Your task to perform on an android device: Open sound settings Image 0: 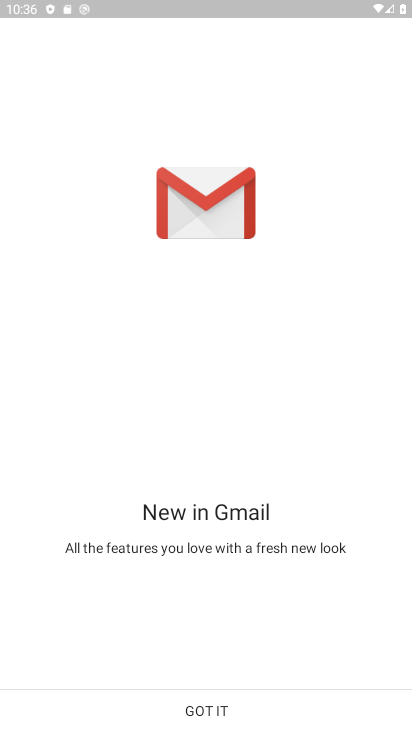
Step 0: press home button
Your task to perform on an android device: Open sound settings Image 1: 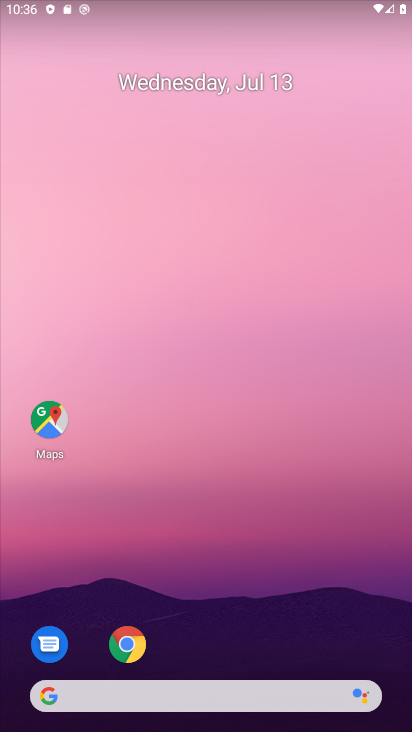
Step 1: drag from (231, 557) to (173, 54)
Your task to perform on an android device: Open sound settings Image 2: 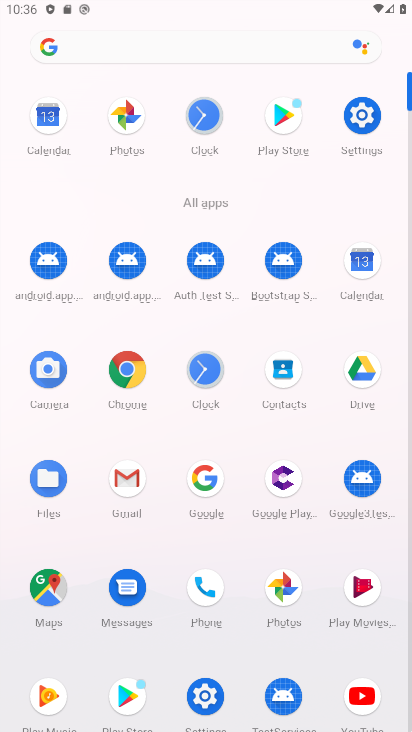
Step 2: click (362, 116)
Your task to perform on an android device: Open sound settings Image 3: 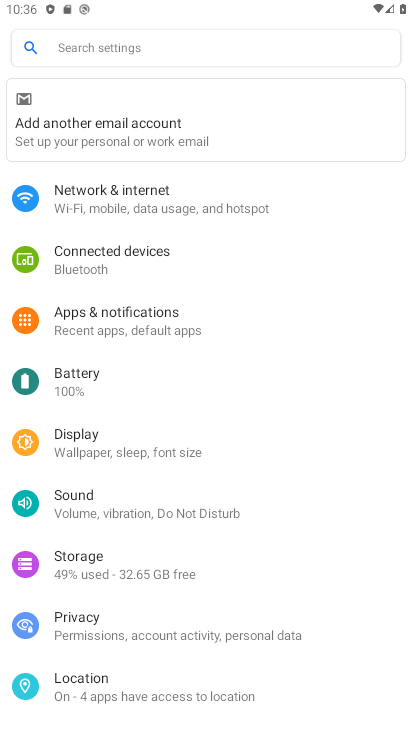
Step 3: click (73, 490)
Your task to perform on an android device: Open sound settings Image 4: 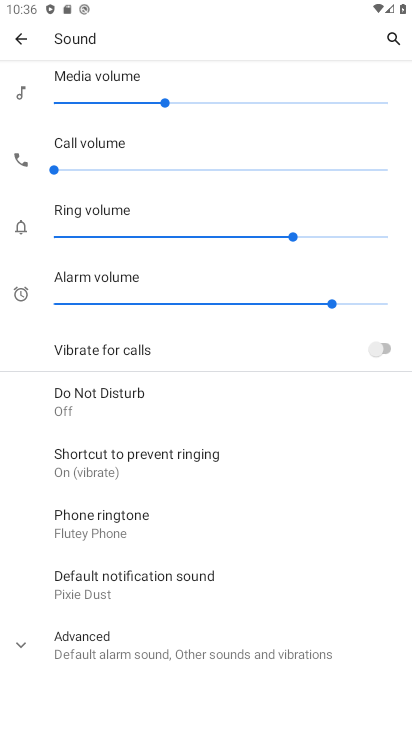
Step 4: task complete